Your task to perform on an android device: change your default location settings in chrome Image 0: 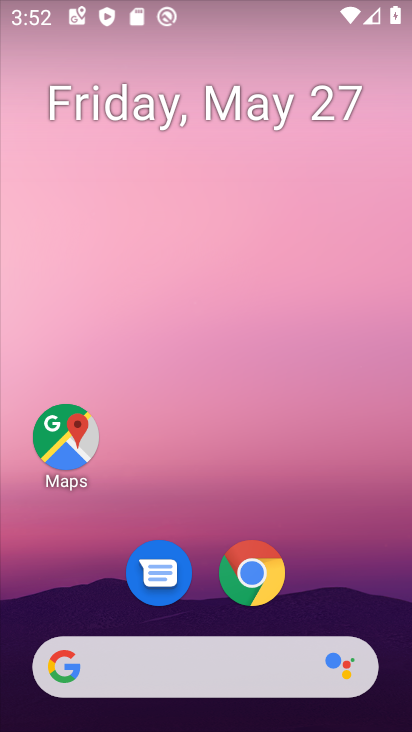
Step 0: drag from (392, 623) to (388, 197)
Your task to perform on an android device: change your default location settings in chrome Image 1: 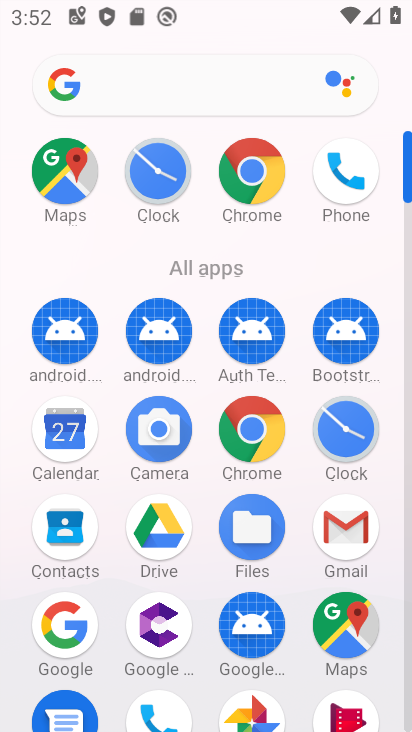
Step 1: click (273, 438)
Your task to perform on an android device: change your default location settings in chrome Image 2: 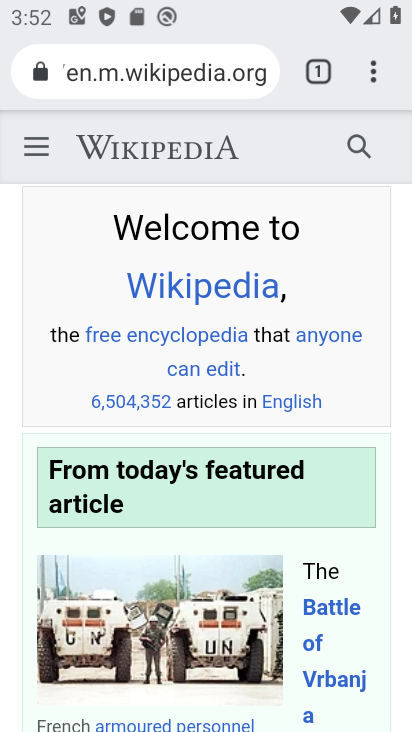
Step 2: click (372, 78)
Your task to perform on an android device: change your default location settings in chrome Image 3: 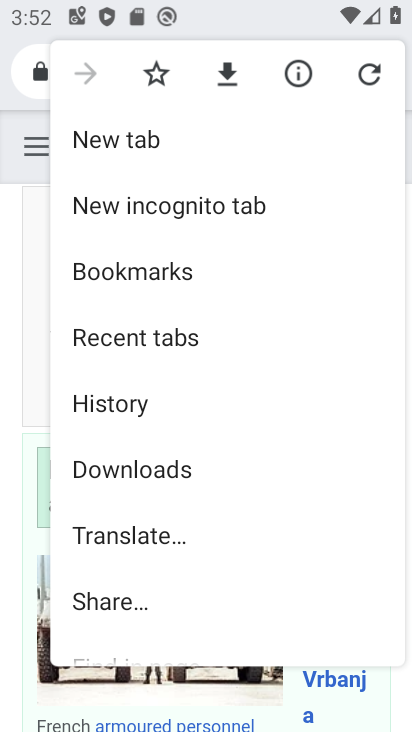
Step 3: drag from (325, 448) to (328, 383)
Your task to perform on an android device: change your default location settings in chrome Image 4: 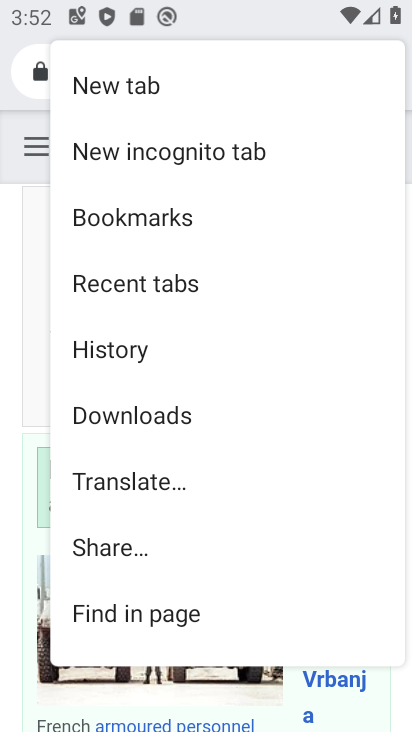
Step 4: drag from (334, 471) to (347, 397)
Your task to perform on an android device: change your default location settings in chrome Image 5: 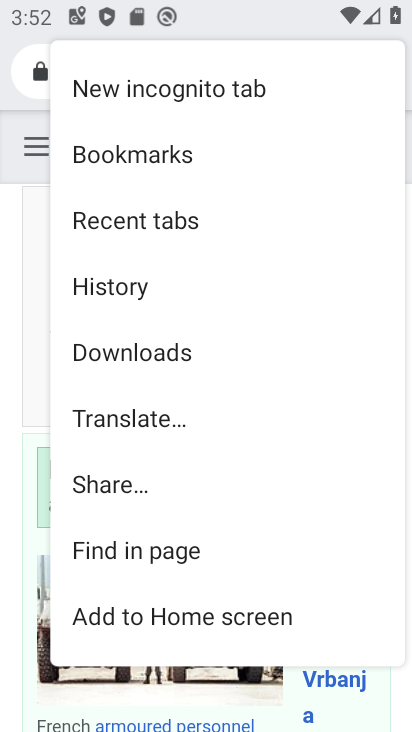
Step 5: drag from (342, 478) to (341, 395)
Your task to perform on an android device: change your default location settings in chrome Image 6: 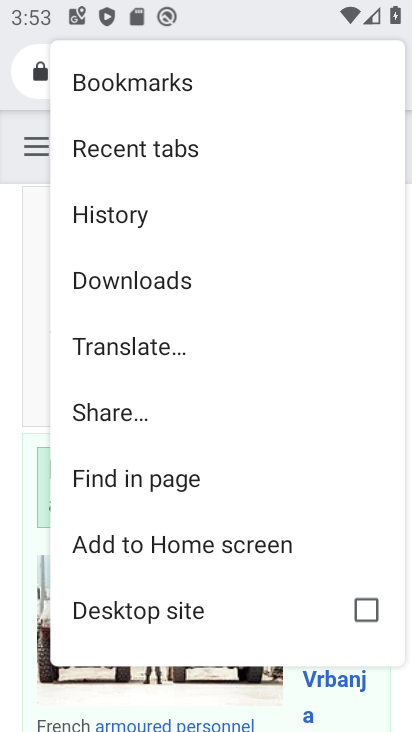
Step 6: drag from (323, 484) to (325, 420)
Your task to perform on an android device: change your default location settings in chrome Image 7: 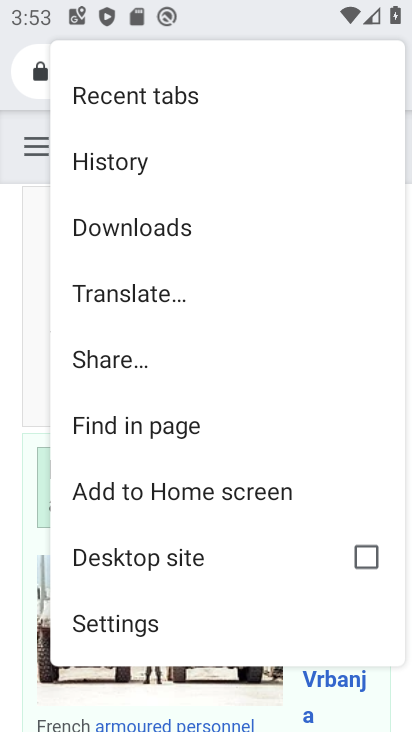
Step 7: drag from (319, 470) to (317, 387)
Your task to perform on an android device: change your default location settings in chrome Image 8: 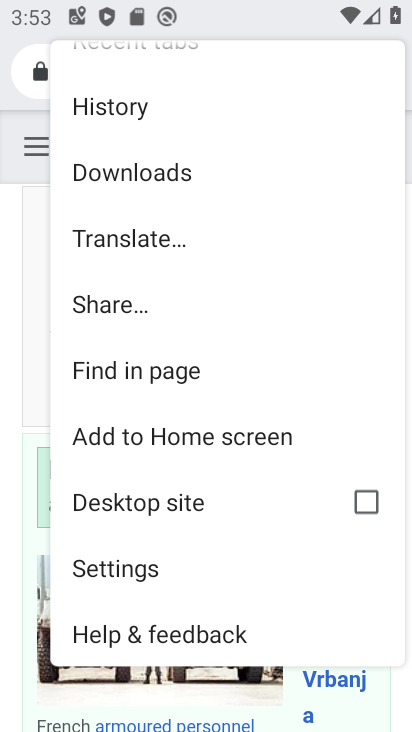
Step 8: click (164, 574)
Your task to perform on an android device: change your default location settings in chrome Image 9: 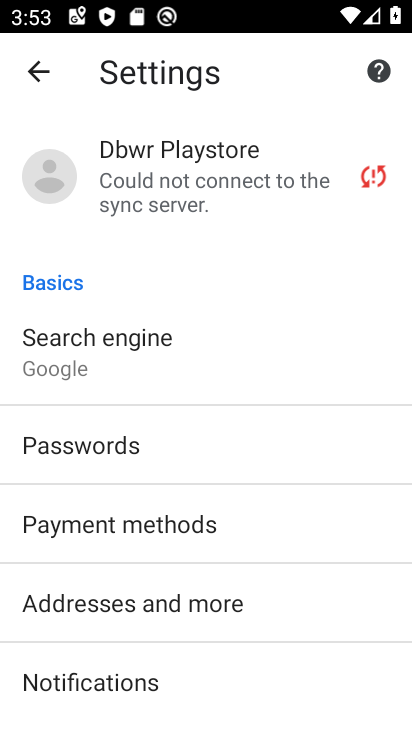
Step 9: drag from (344, 602) to (358, 515)
Your task to perform on an android device: change your default location settings in chrome Image 10: 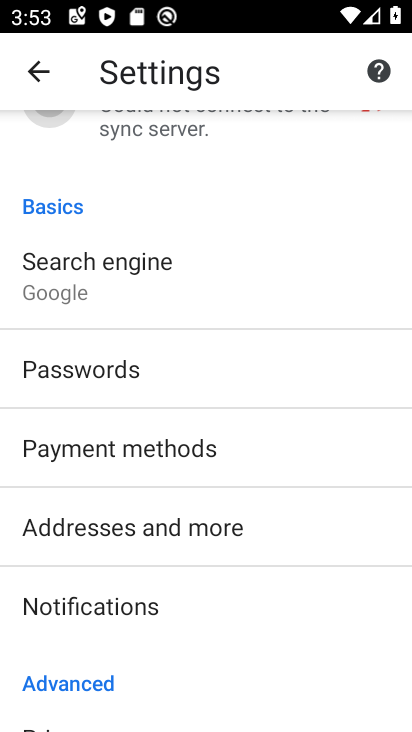
Step 10: drag from (336, 646) to (334, 535)
Your task to perform on an android device: change your default location settings in chrome Image 11: 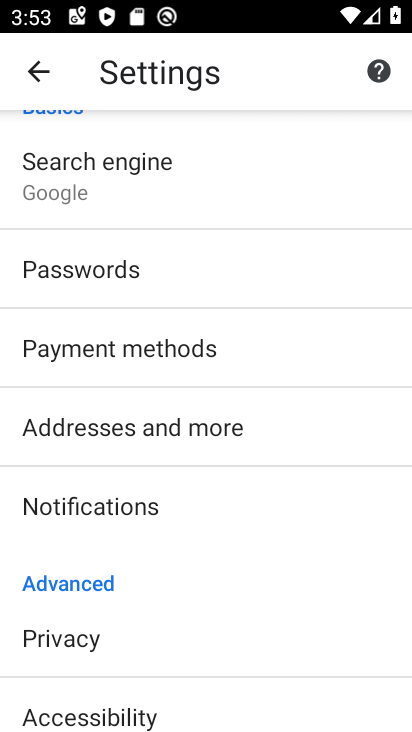
Step 11: drag from (320, 630) to (319, 539)
Your task to perform on an android device: change your default location settings in chrome Image 12: 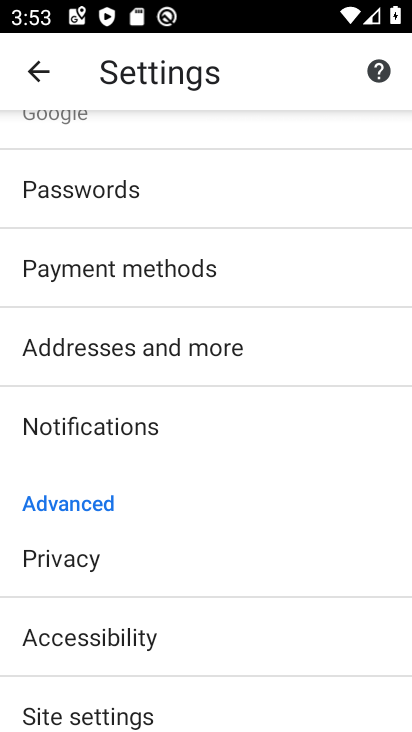
Step 12: drag from (305, 642) to (305, 548)
Your task to perform on an android device: change your default location settings in chrome Image 13: 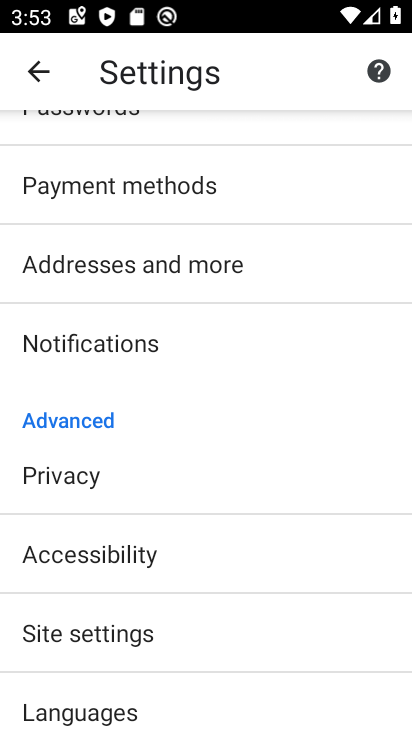
Step 13: drag from (304, 640) to (303, 542)
Your task to perform on an android device: change your default location settings in chrome Image 14: 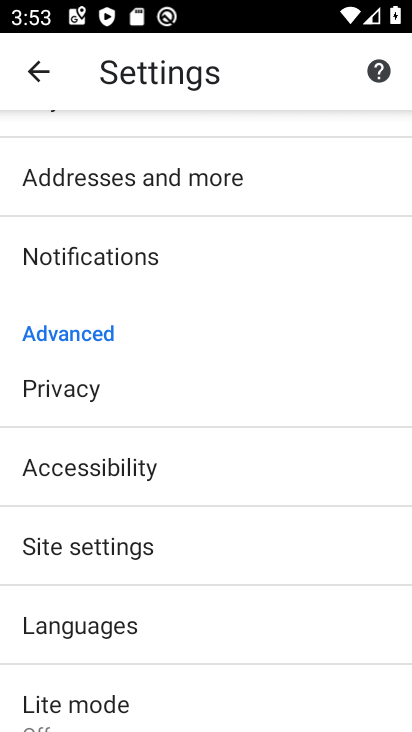
Step 14: drag from (286, 661) to (289, 584)
Your task to perform on an android device: change your default location settings in chrome Image 15: 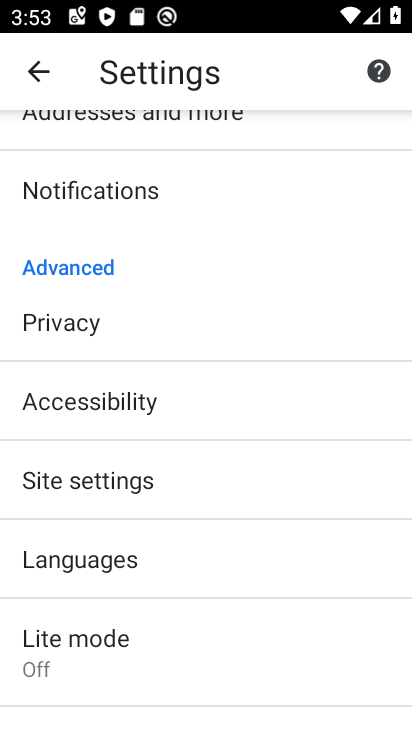
Step 15: drag from (292, 667) to (291, 577)
Your task to perform on an android device: change your default location settings in chrome Image 16: 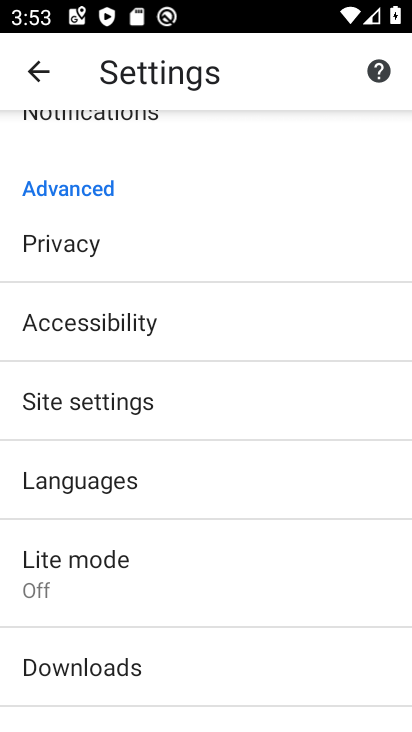
Step 16: click (283, 380)
Your task to perform on an android device: change your default location settings in chrome Image 17: 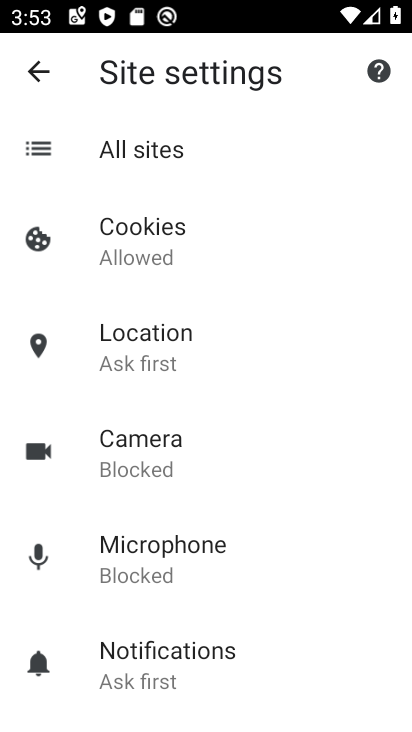
Step 17: click (259, 349)
Your task to perform on an android device: change your default location settings in chrome Image 18: 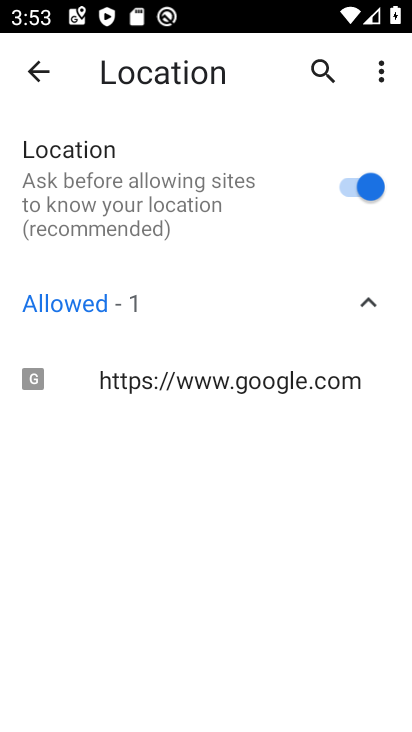
Step 18: click (366, 185)
Your task to perform on an android device: change your default location settings in chrome Image 19: 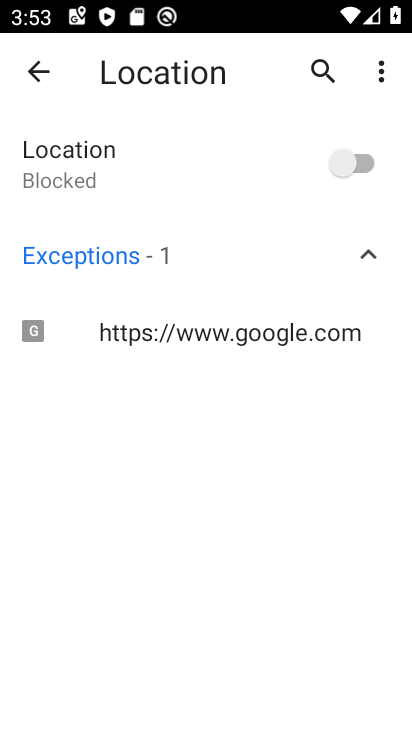
Step 19: task complete